Your task to perform on an android device: check google app version Image 0: 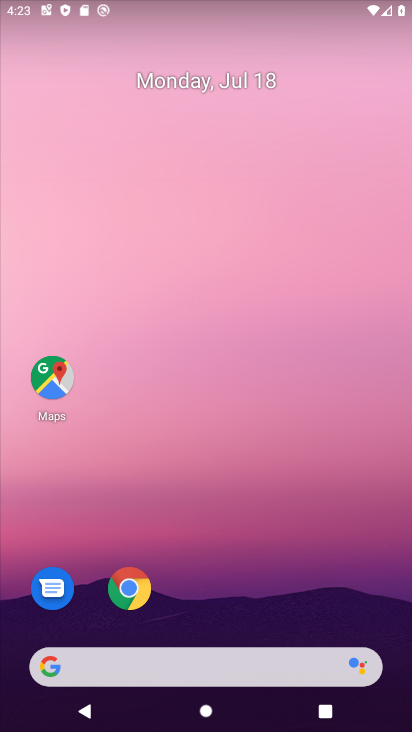
Step 0: drag from (187, 615) to (269, 86)
Your task to perform on an android device: check google app version Image 1: 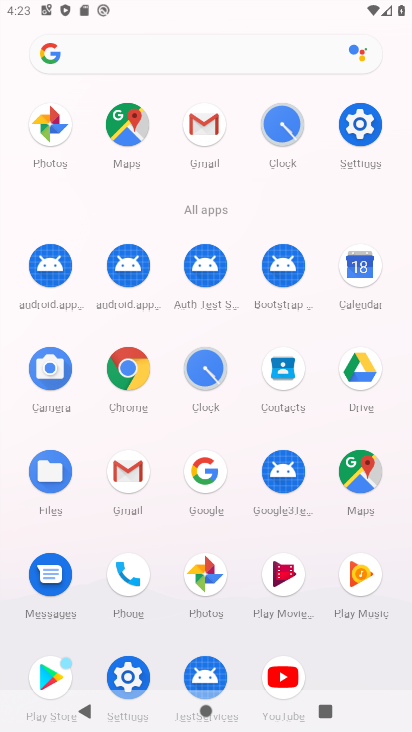
Step 1: click (133, 672)
Your task to perform on an android device: check google app version Image 2: 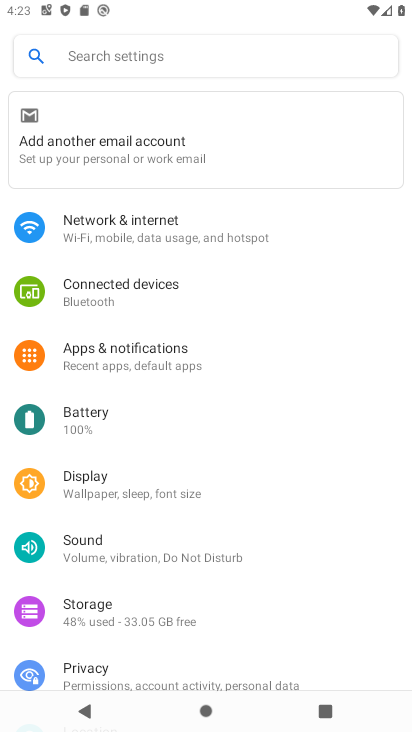
Step 2: click (172, 355)
Your task to perform on an android device: check google app version Image 3: 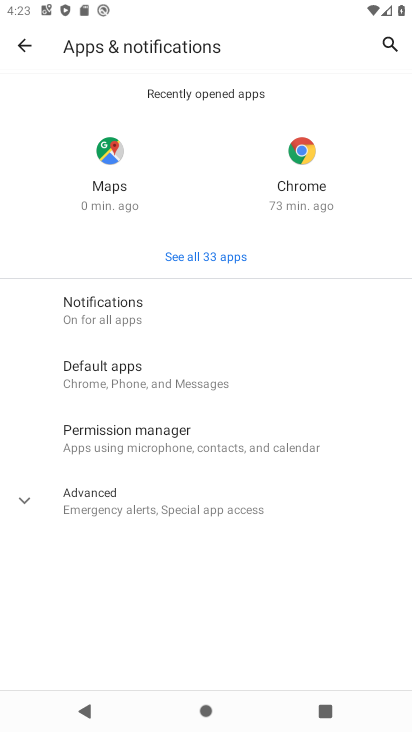
Step 3: click (213, 251)
Your task to perform on an android device: check google app version Image 4: 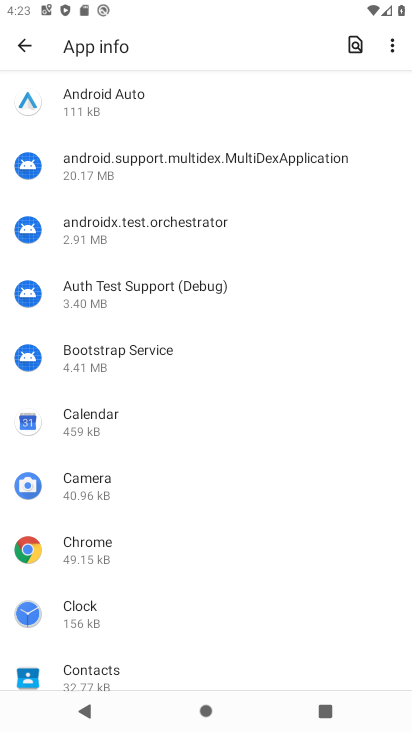
Step 4: drag from (200, 646) to (294, 214)
Your task to perform on an android device: check google app version Image 5: 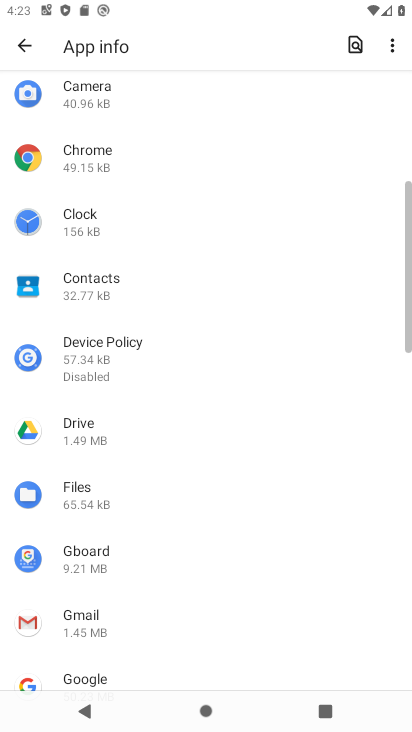
Step 5: drag from (173, 608) to (259, 242)
Your task to perform on an android device: check google app version Image 6: 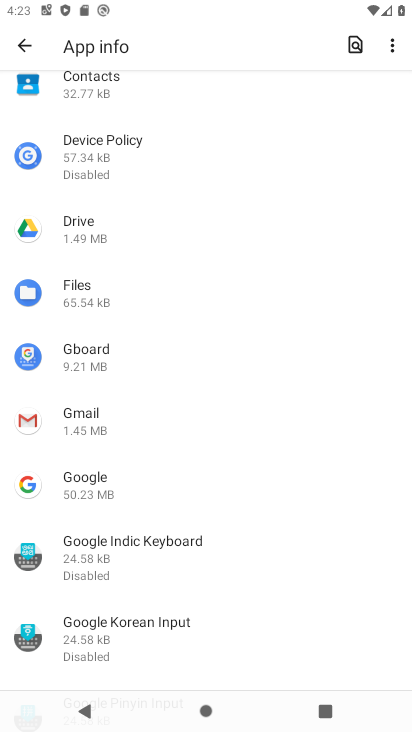
Step 6: click (121, 486)
Your task to perform on an android device: check google app version Image 7: 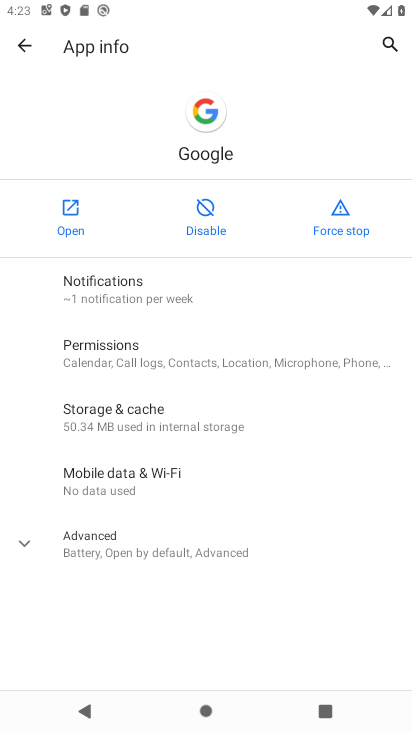
Step 7: click (178, 562)
Your task to perform on an android device: check google app version Image 8: 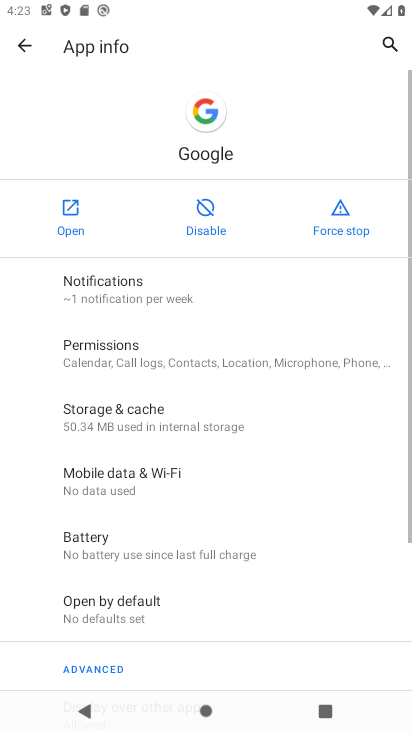
Step 8: task complete